Your task to perform on an android device: check battery use Image 0: 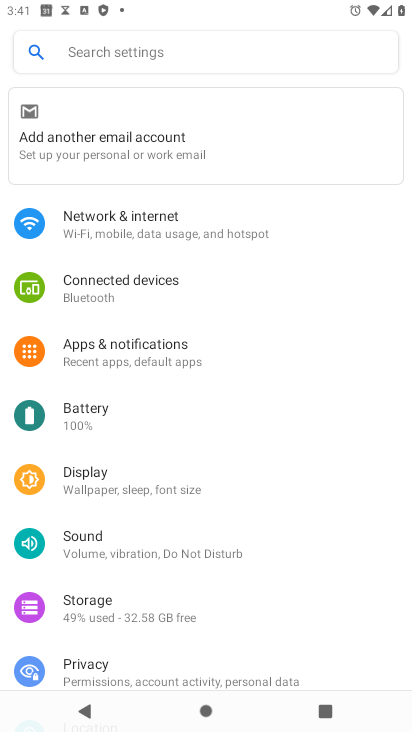
Step 0: click (130, 419)
Your task to perform on an android device: check battery use Image 1: 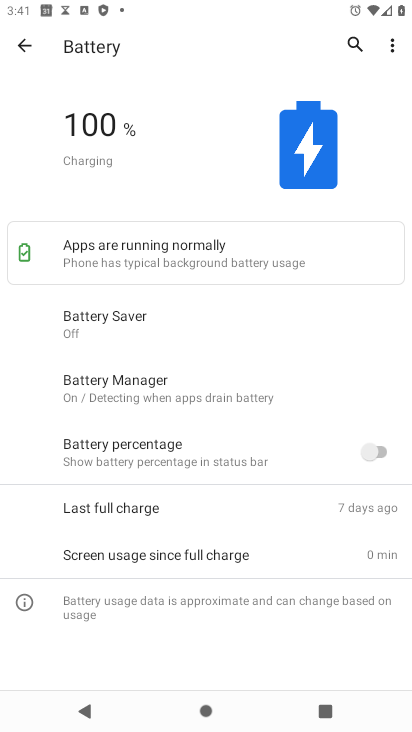
Step 1: click (383, 42)
Your task to perform on an android device: check battery use Image 2: 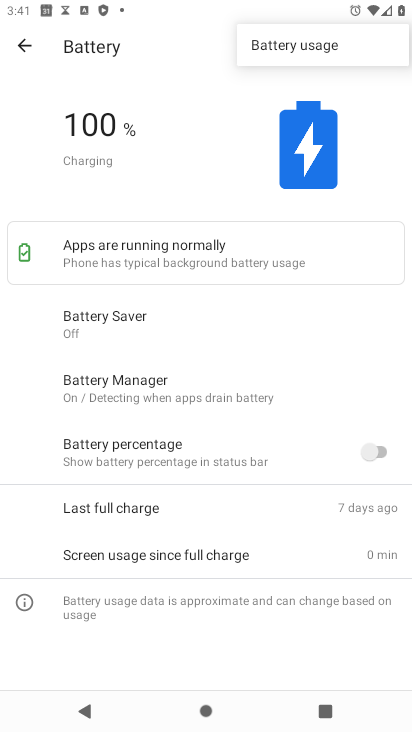
Step 2: click (315, 44)
Your task to perform on an android device: check battery use Image 3: 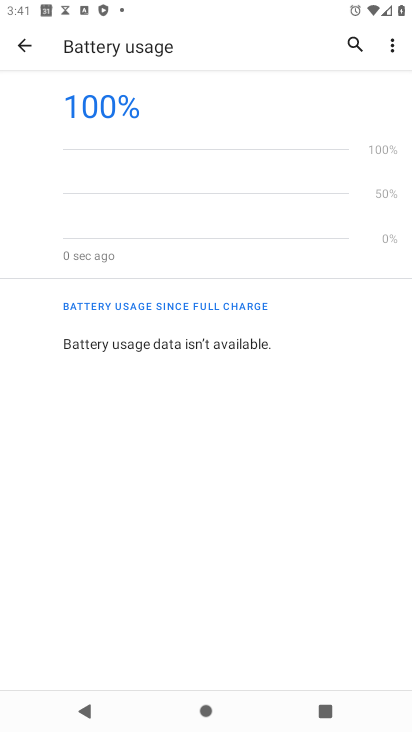
Step 3: task complete